Your task to perform on an android device: change notification settings in the gmail app Image 0: 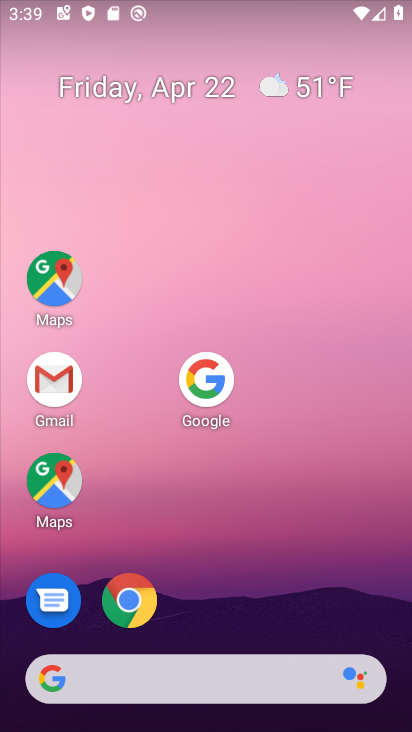
Step 0: drag from (262, 651) to (221, 136)
Your task to perform on an android device: change notification settings in the gmail app Image 1: 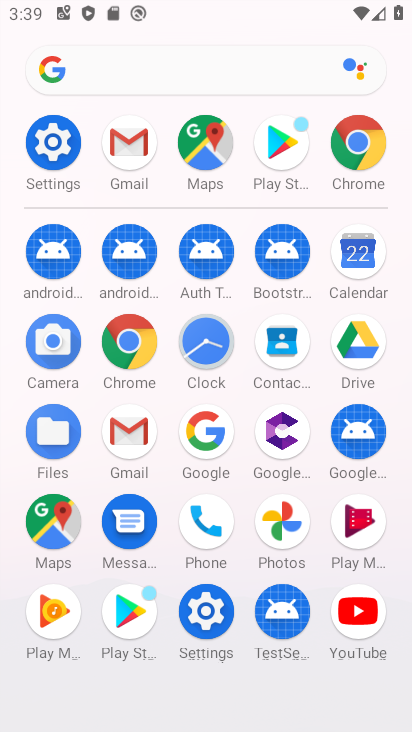
Step 1: click (131, 433)
Your task to perform on an android device: change notification settings in the gmail app Image 2: 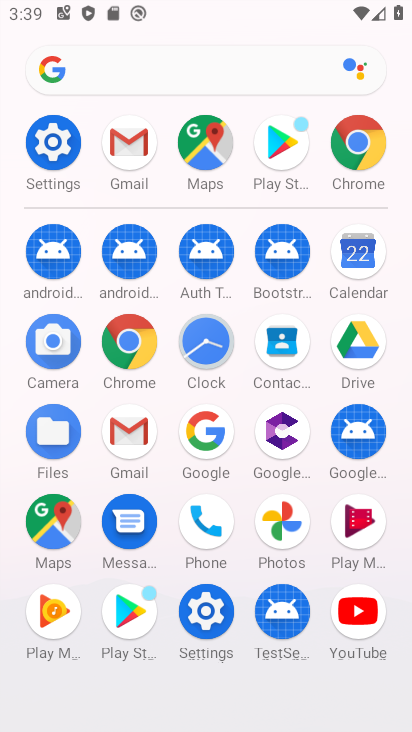
Step 2: click (131, 433)
Your task to perform on an android device: change notification settings in the gmail app Image 3: 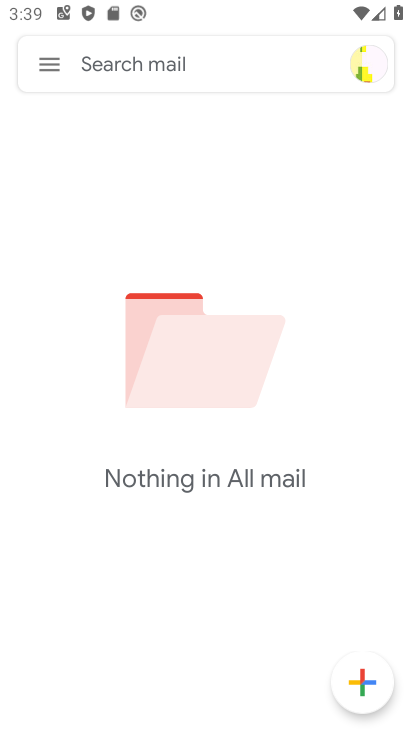
Step 3: click (42, 65)
Your task to perform on an android device: change notification settings in the gmail app Image 4: 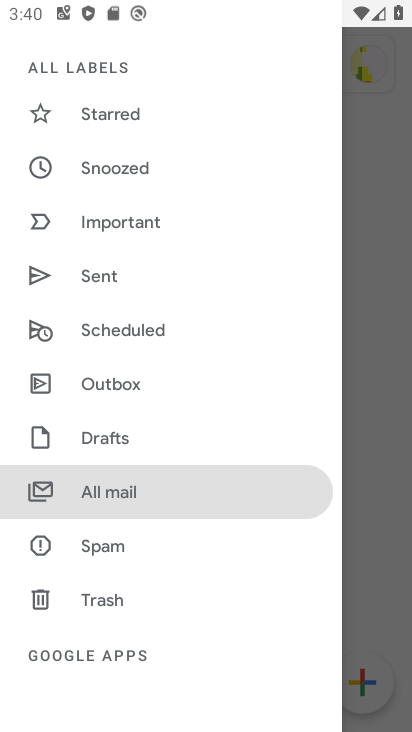
Step 4: drag from (199, 529) to (203, 76)
Your task to perform on an android device: change notification settings in the gmail app Image 5: 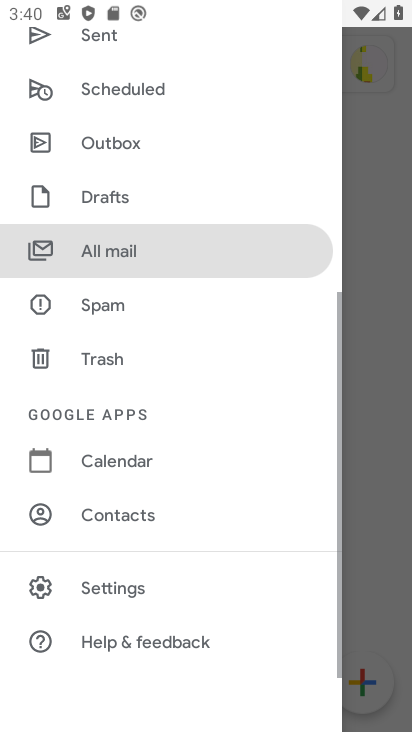
Step 5: drag from (215, 510) to (234, 66)
Your task to perform on an android device: change notification settings in the gmail app Image 6: 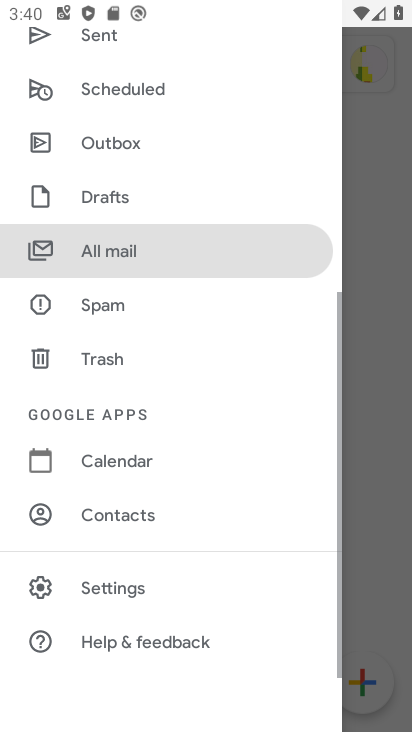
Step 6: click (117, 591)
Your task to perform on an android device: change notification settings in the gmail app Image 7: 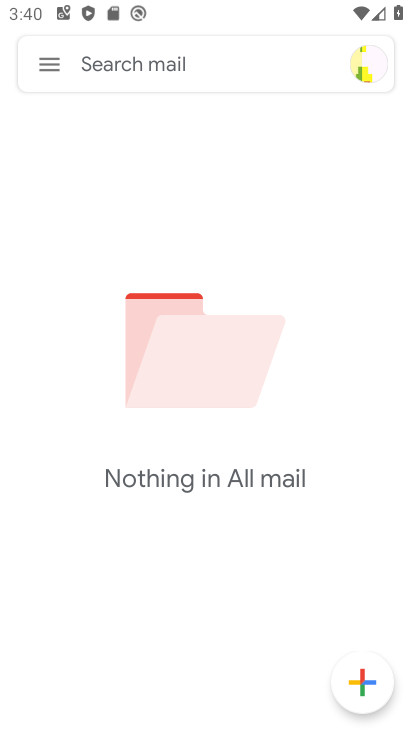
Step 7: click (119, 588)
Your task to perform on an android device: change notification settings in the gmail app Image 8: 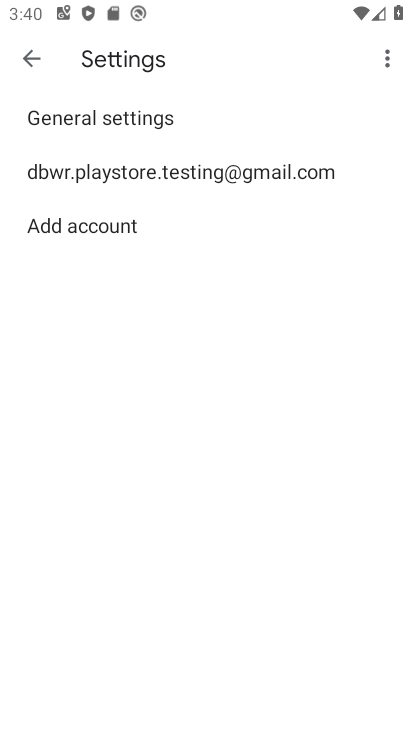
Step 8: click (162, 166)
Your task to perform on an android device: change notification settings in the gmail app Image 9: 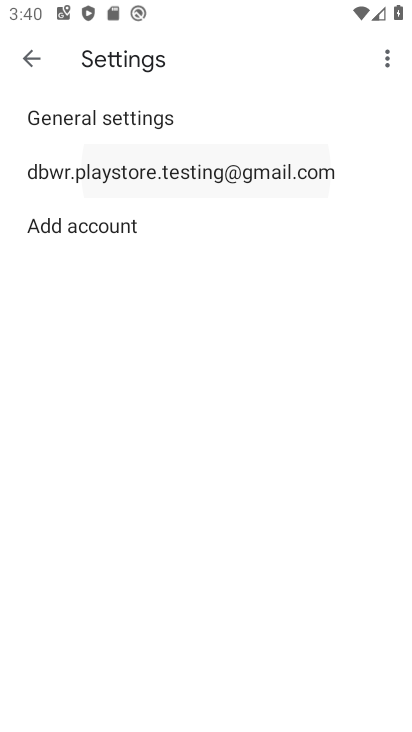
Step 9: click (162, 166)
Your task to perform on an android device: change notification settings in the gmail app Image 10: 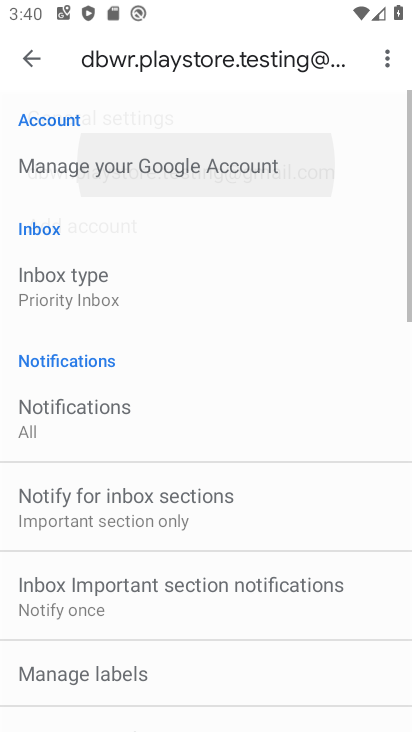
Step 10: click (162, 166)
Your task to perform on an android device: change notification settings in the gmail app Image 11: 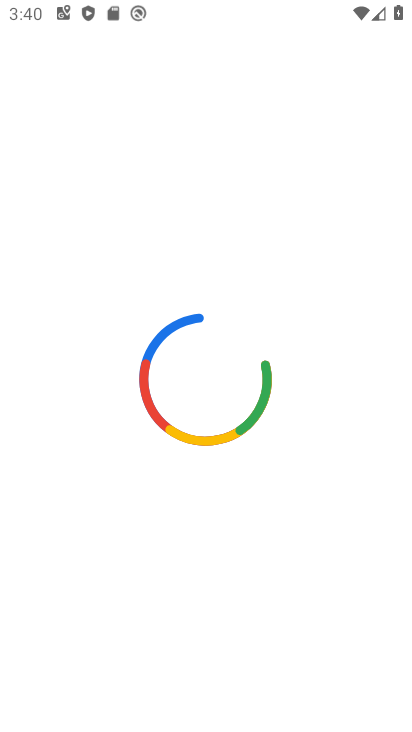
Step 11: click (136, 283)
Your task to perform on an android device: change notification settings in the gmail app Image 12: 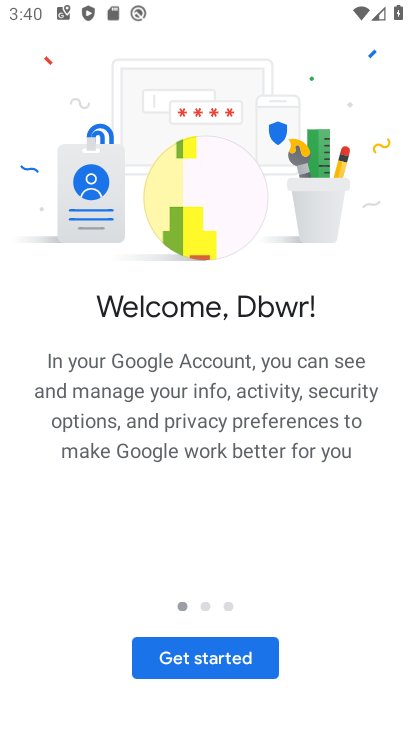
Step 12: press back button
Your task to perform on an android device: change notification settings in the gmail app Image 13: 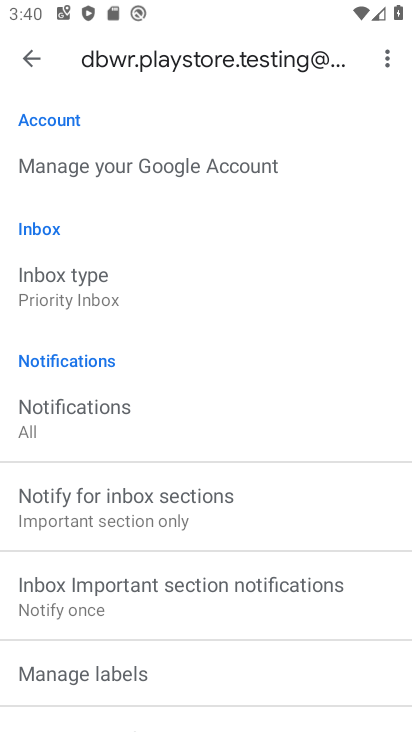
Step 13: click (52, 401)
Your task to perform on an android device: change notification settings in the gmail app Image 14: 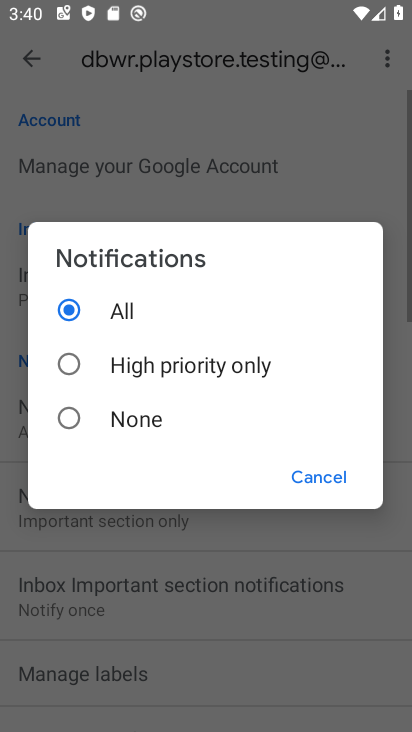
Step 14: click (52, 401)
Your task to perform on an android device: change notification settings in the gmail app Image 15: 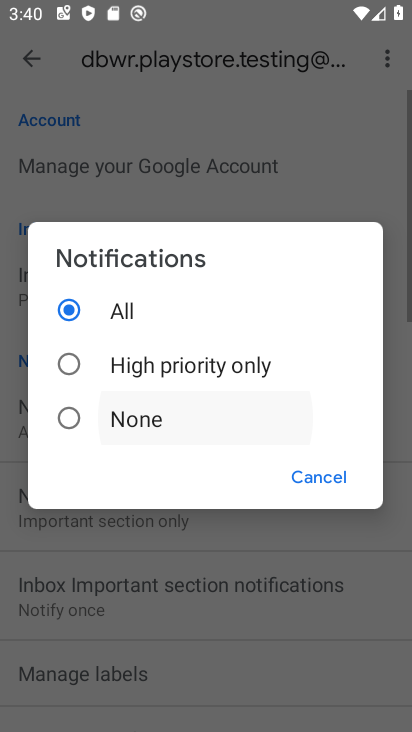
Step 15: click (54, 402)
Your task to perform on an android device: change notification settings in the gmail app Image 16: 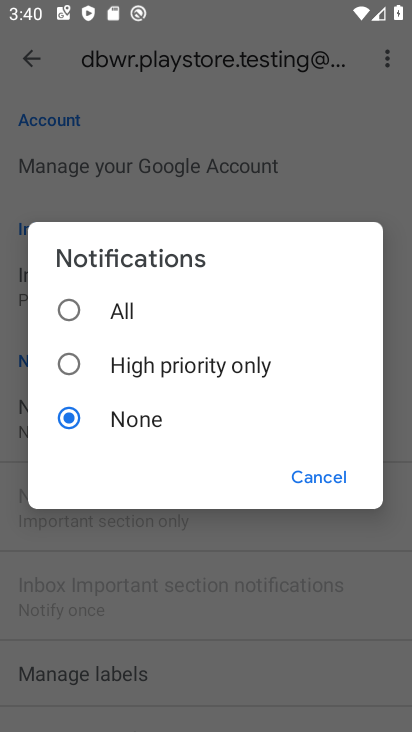
Step 16: click (65, 364)
Your task to perform on an android device: change notification settings in the gmail app Image 17: 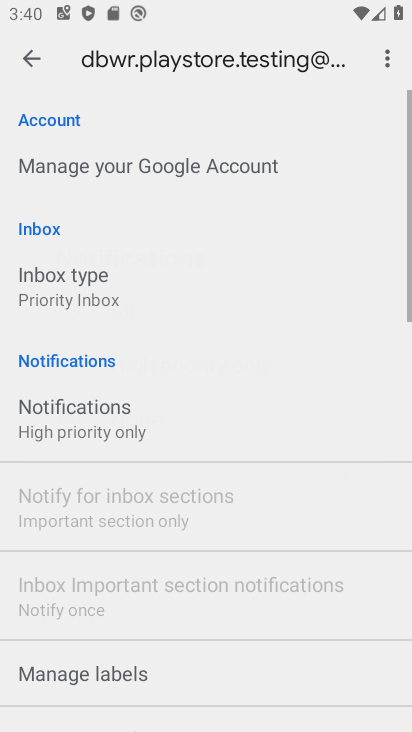
Step 17: click (64, 365)
Your task to perform on an android device: change notification settings in the gmail app Image 18: 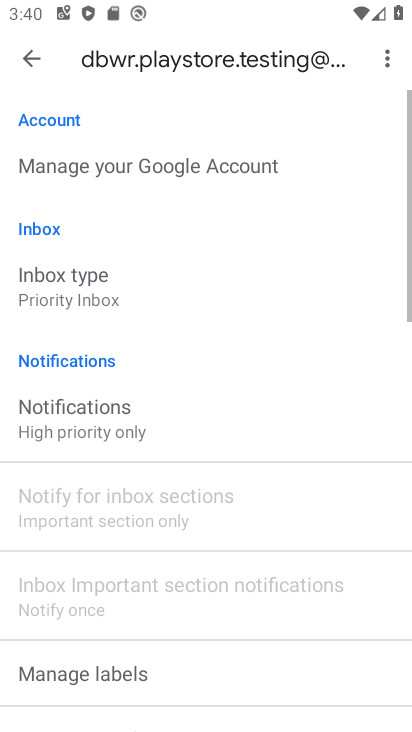
Step 18: click (64, 365)
Your task to perform on an android device: change notification settings in the gmail app Image 19: 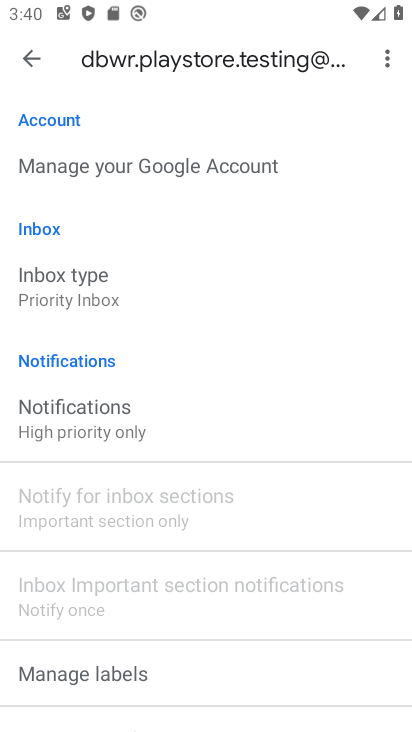
Step 19: task complete